Your task to perform on an android device: check google app version Image 0: 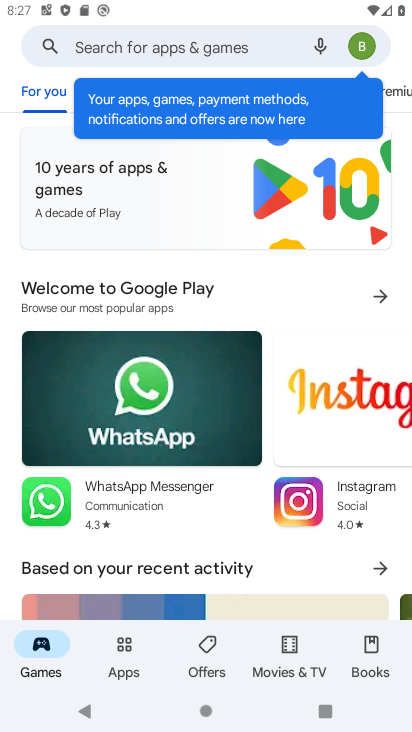
Step 0: press home button
Your task to perform on an android device: check google app version Image 1: 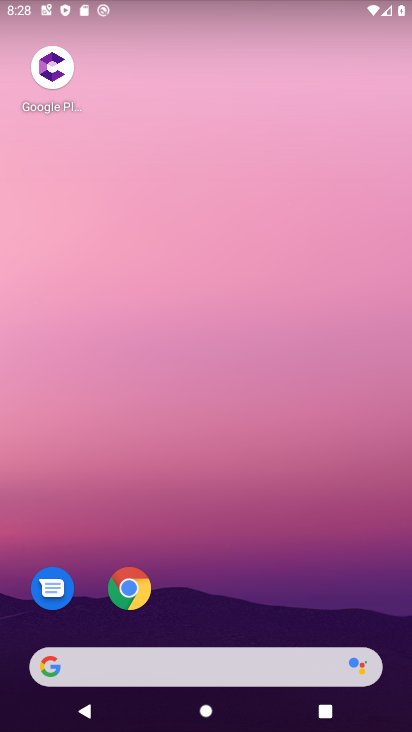
Step 1: drag from (158, 644) to (183, 307)
Your task to perform on an android device: check google app version Image 2: 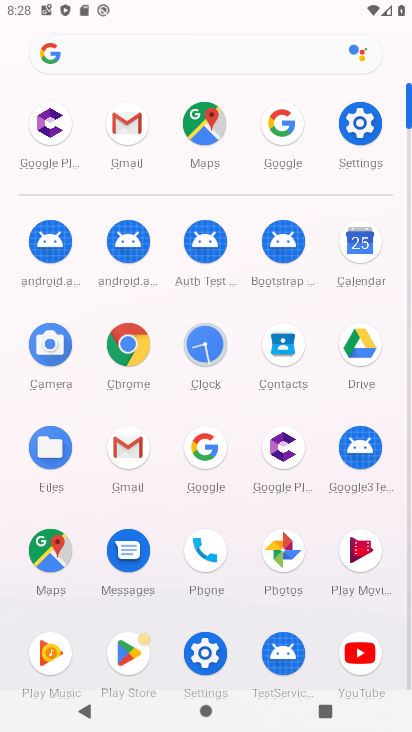
Step 2: click (283, 125)
Your task to perform on an android device: check google app version Image 3: 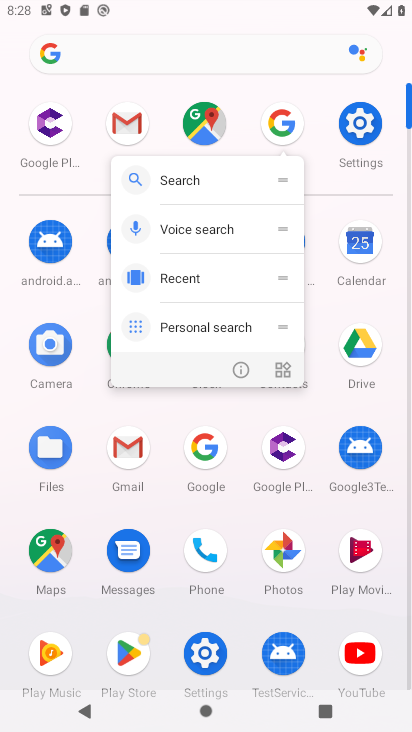
Step 3: click (243, 374)
Your task to perform on an android device: check google app version Image 4: 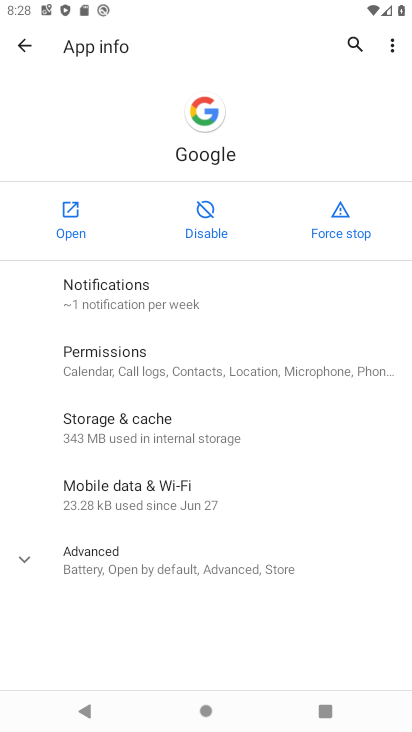
Step 4: click (86, 564)
Your task to perform on an android device: check google app version Image 5: 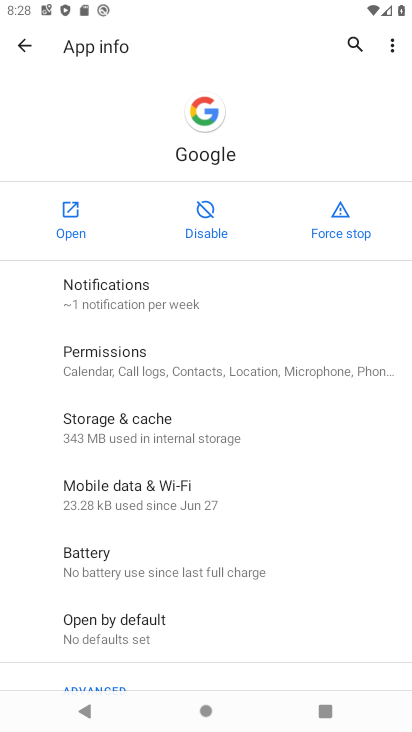
Step 5: task complete